Your task to perform on an android device: Open Yahoo.com Image 0: 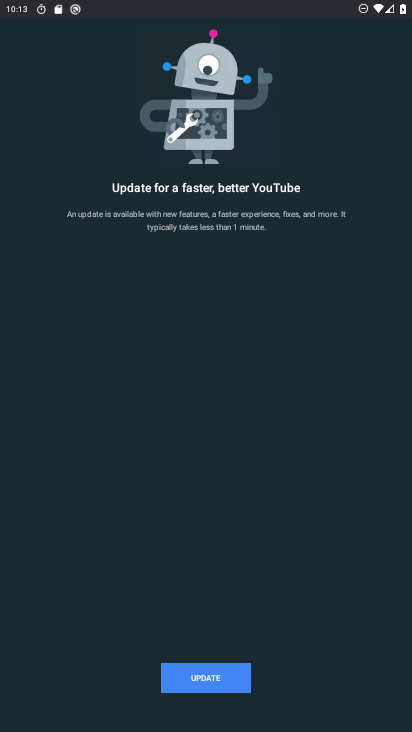
Step 0: press home button
Your task to perform on an android device: Open Yahoo.com Image 1: 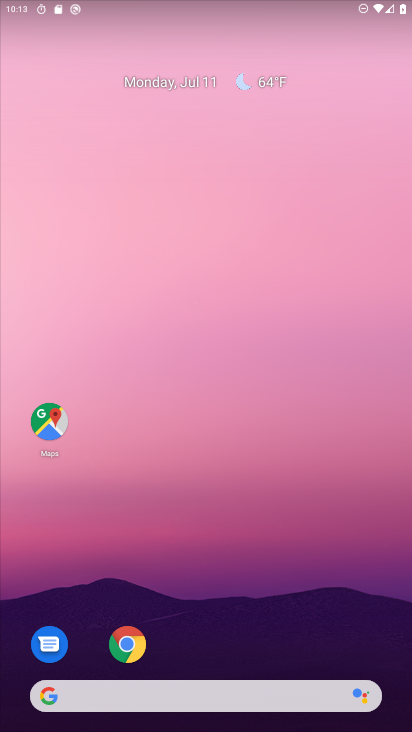
Step 1: drag from (351, 613) to (321, 109)
Your task to perform on an android device: Open Yahoo.com Image 2: 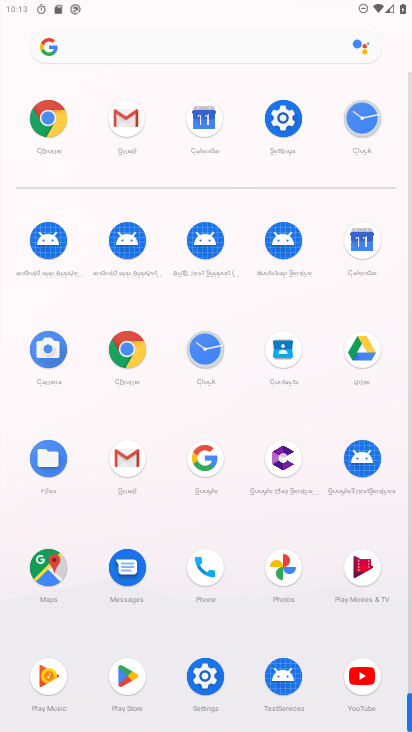
Step 2: click (128, 346)
Your task to perform on an android device: Open Yahoo.com Image 3: 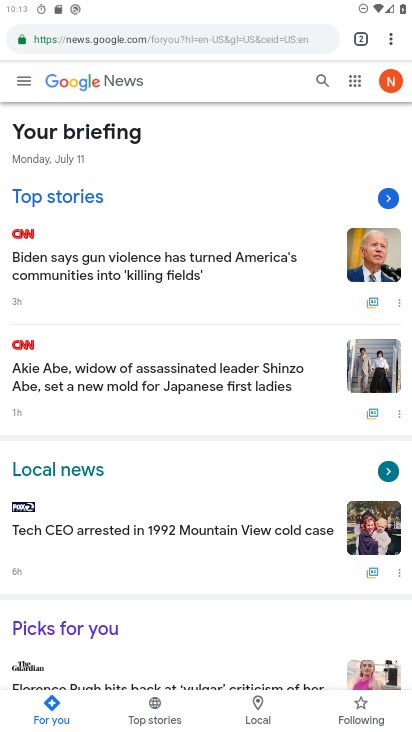
Step 3: click (150, 33)
Your task to perform on an android device: Open Yahoo.com Image 4: 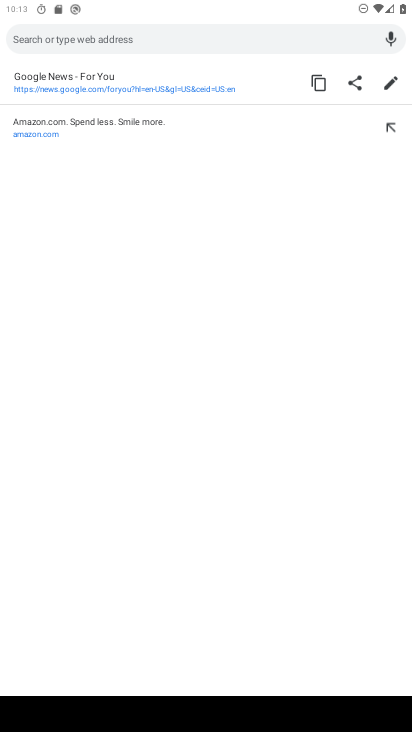
Step 4: type "yahoo.com"
Your task to perform on an android device: Open Yahoo.com Image 5: 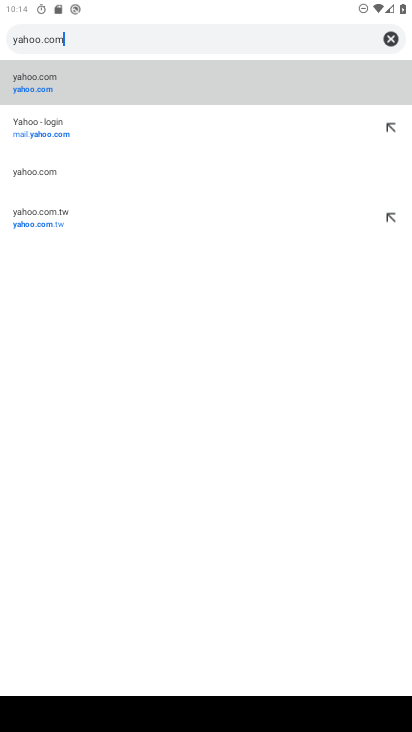
Step 5: click (50, 81)
Your task to perform on an android device: Open Yahoo.com Image 6: 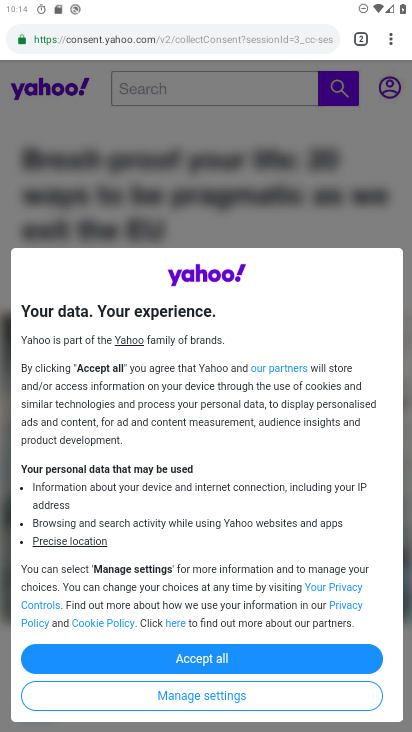
Step 6: task complete